Your task to perform on an android device: check data usage Image 0: 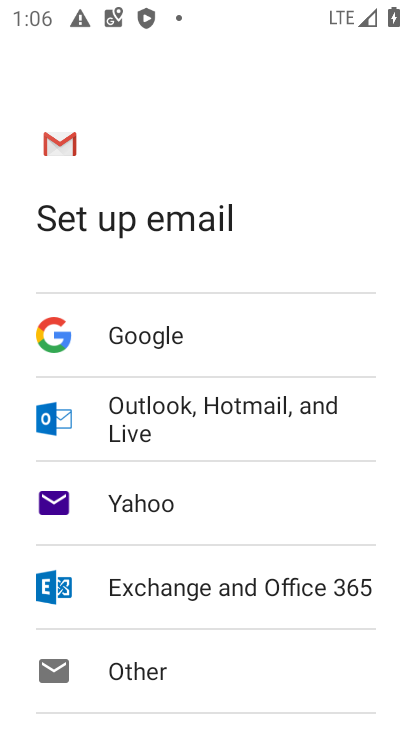
Step 0: press home button
Your task to perform on an android device: check data usage Image 1: 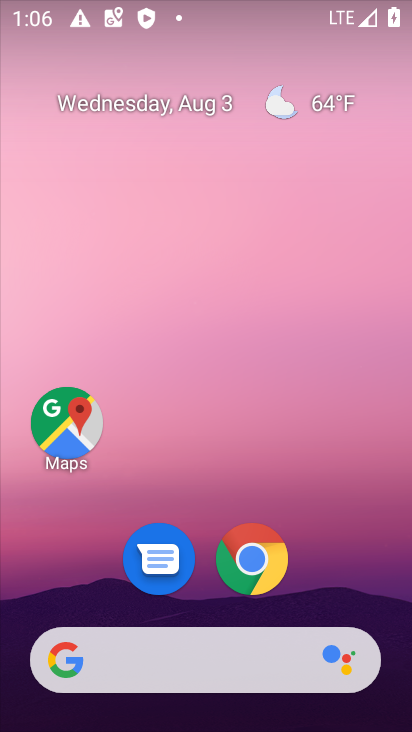
Step 1: drag from (206, 595) to (215, 36)
Your task to perform on an android device: check data usage Image 2: 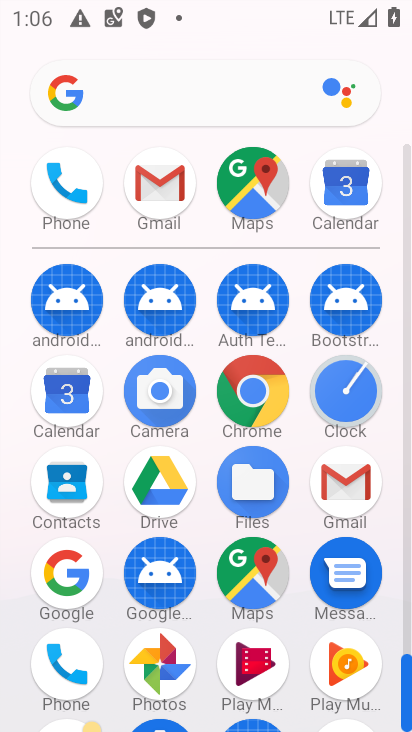
Step 2: drag from (110, 641) to (143, 301)
Your task to perform on an android device: check data usage Image 3: 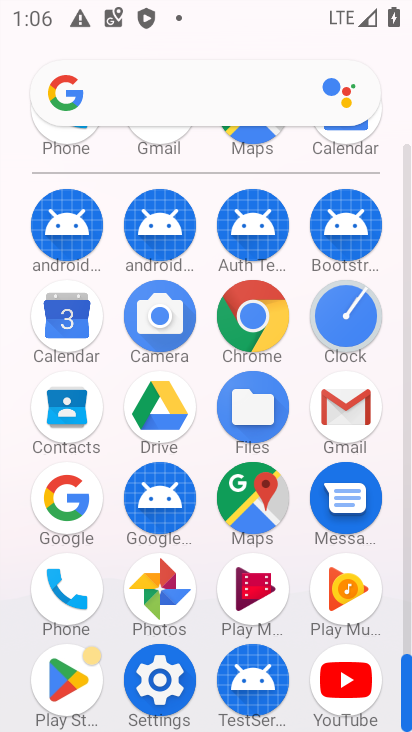
Step 3: click (162, 690)
Your task to perform on an android device: check data usage Image 4: 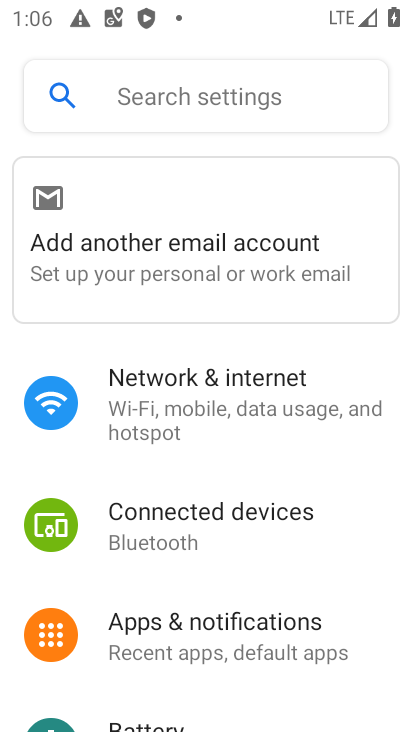
Step 4: click (161, 383)
Your task to perform on an android device: check data usage Image 5: 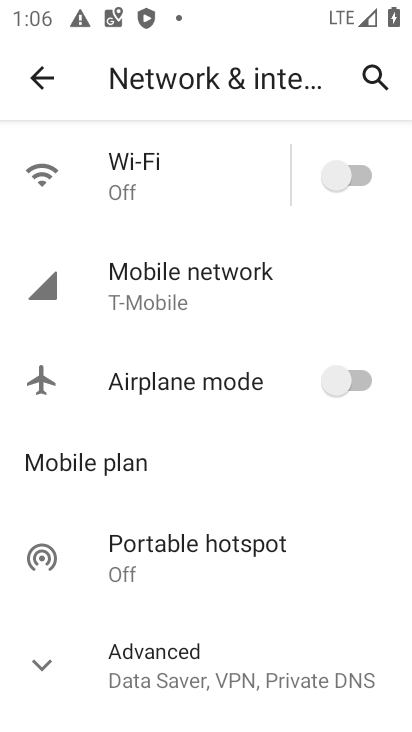
Step 5: click (140, 292)
Your task to perform on an android device: check data usage Image 6: 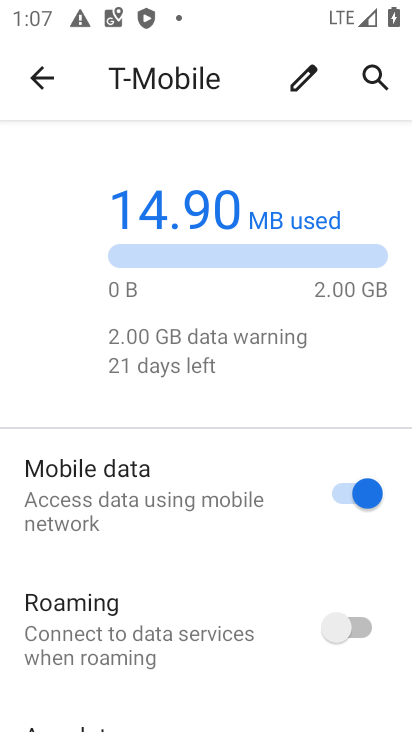
Step 6: drag from (192, 663) to (192, 231)
Your task to perform on an android device: check data usage Image 7: 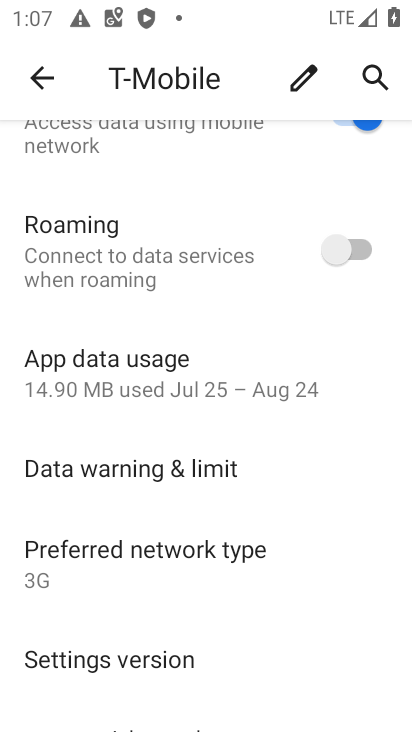
Step 7: click (96, 377)
Your task to perform on an android device: check data usage Image 8: 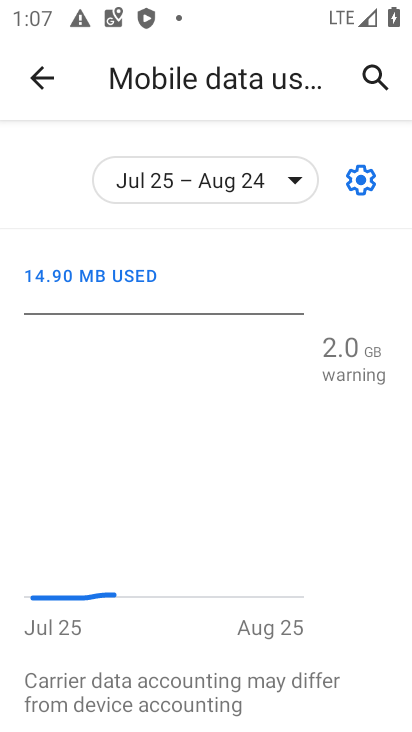
Step 8: task complete